Your task to perform on an android device: open app "Google Docs" Image 0: 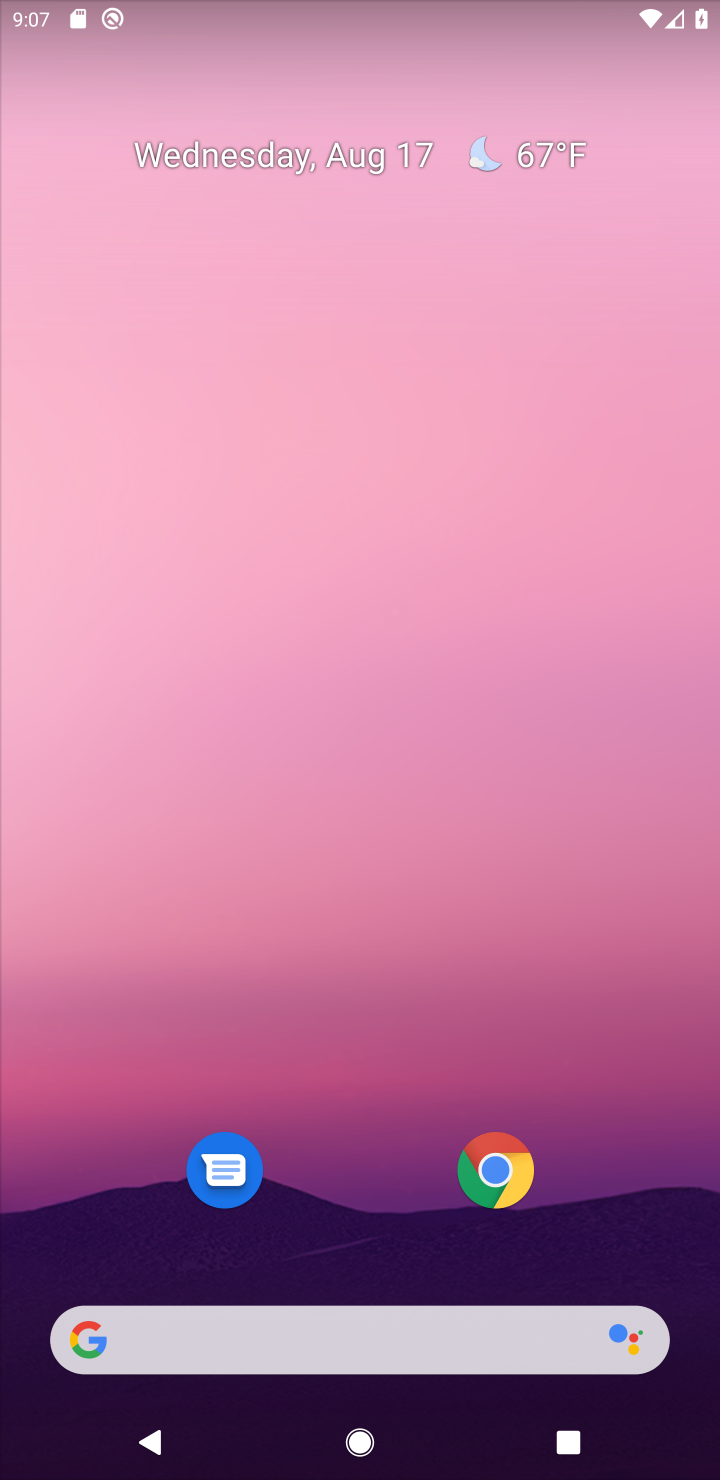
Step 0: drag from (363, 1191) to (203, 127)
Your task to perform on an android device: open app "Google Docs" Image 1: 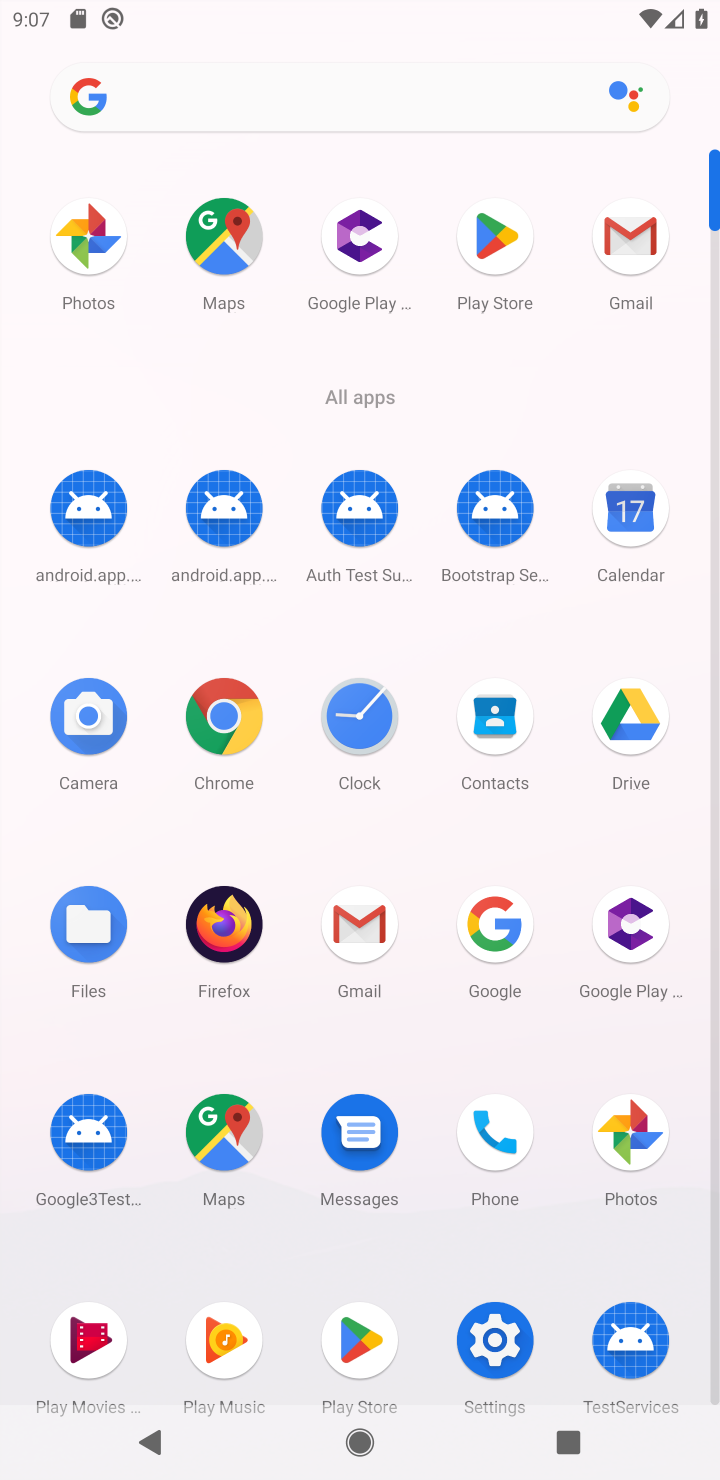
Step 1: click (330, 1313)
Your task to perform on an android device: open app "Google Docs" Image 2: 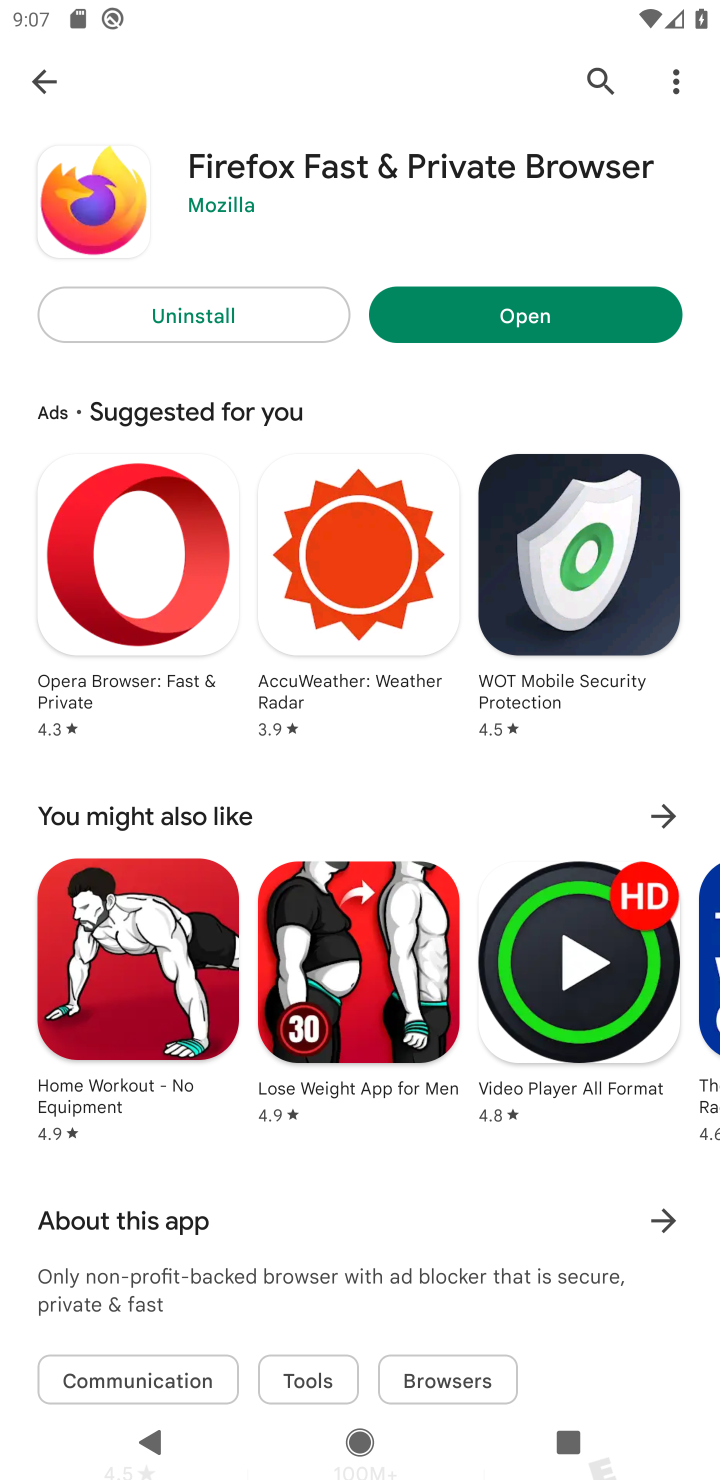
Step 2: click (28, 79)
Your task to perform on an android device: open app "Google Docs" Image 3: 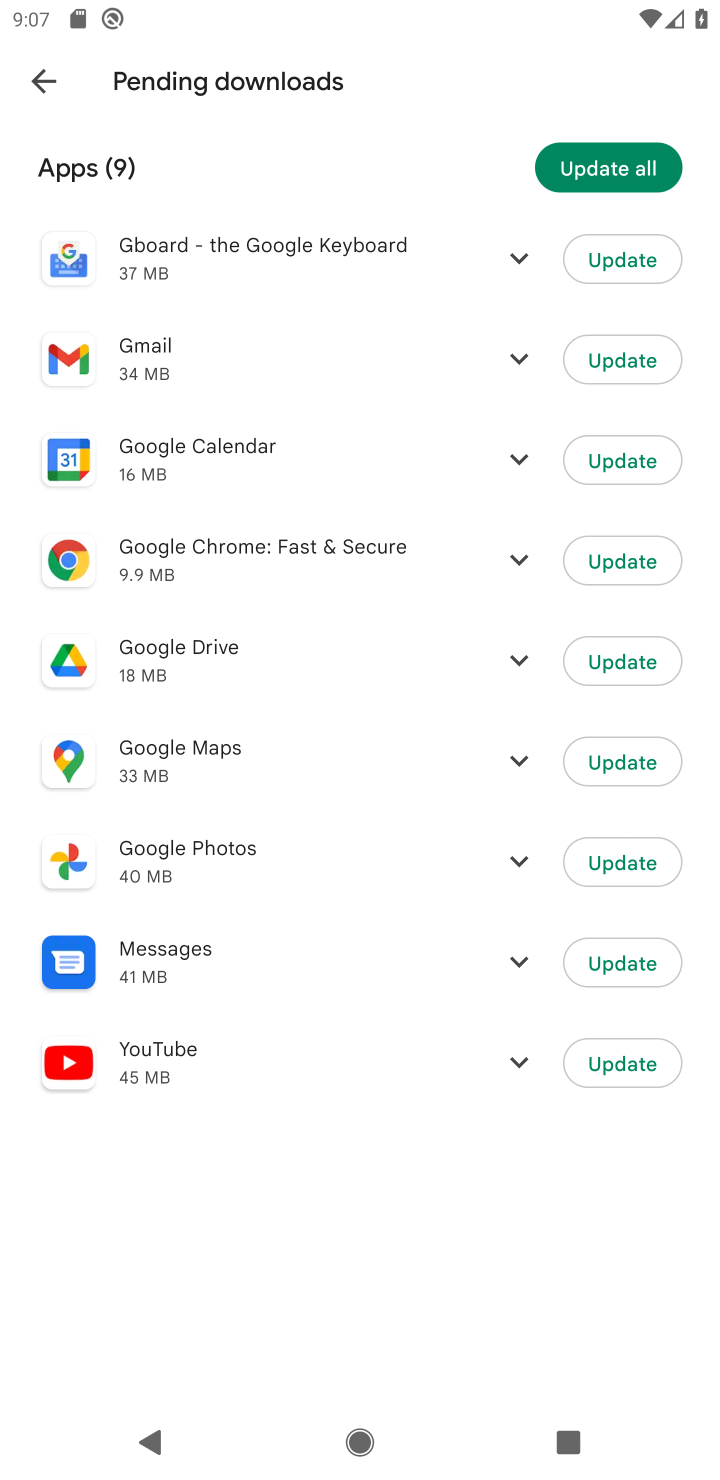
Step 3: click (51, 78)
Your task to perform on an android device: open app "Google Docs" Image 4: 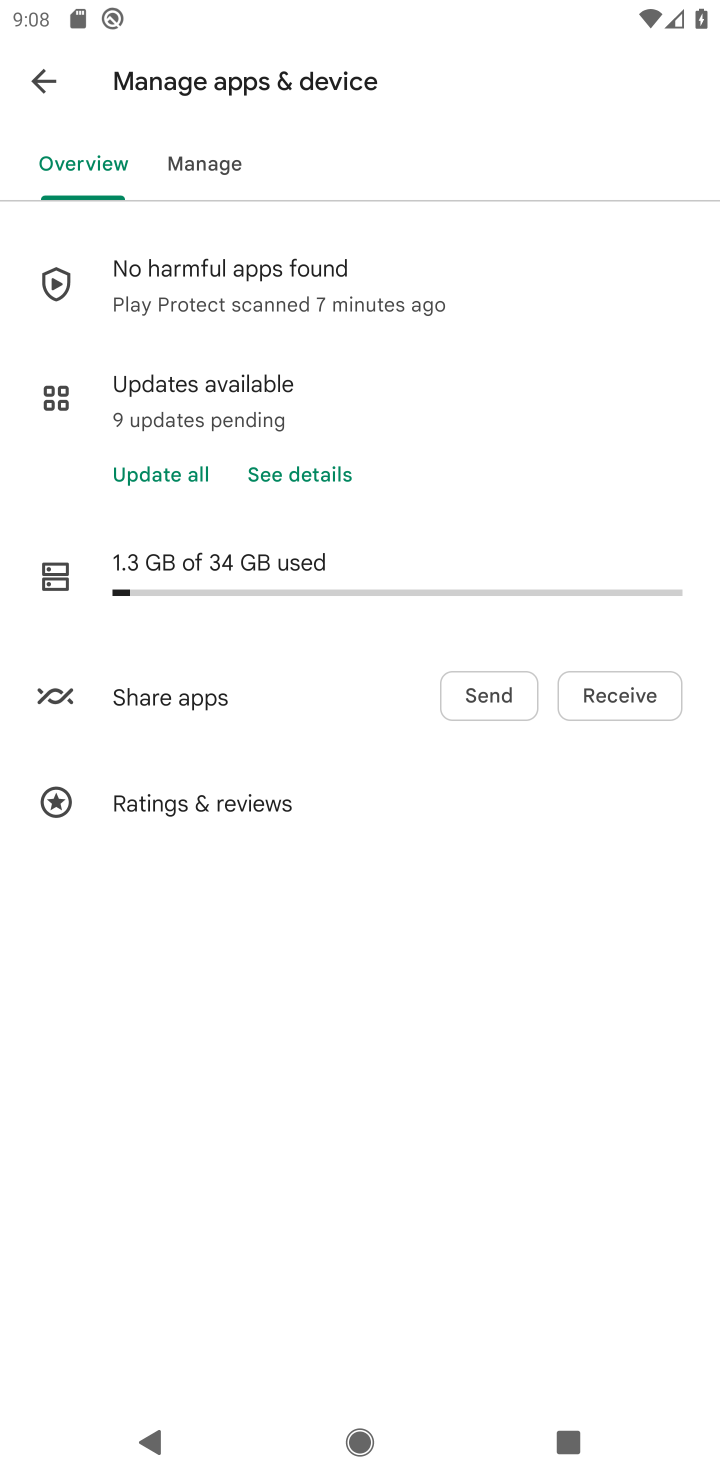
Step 4: click (51, 78)
Your task to perform on an android device: open app "Google Docs" Image 5: 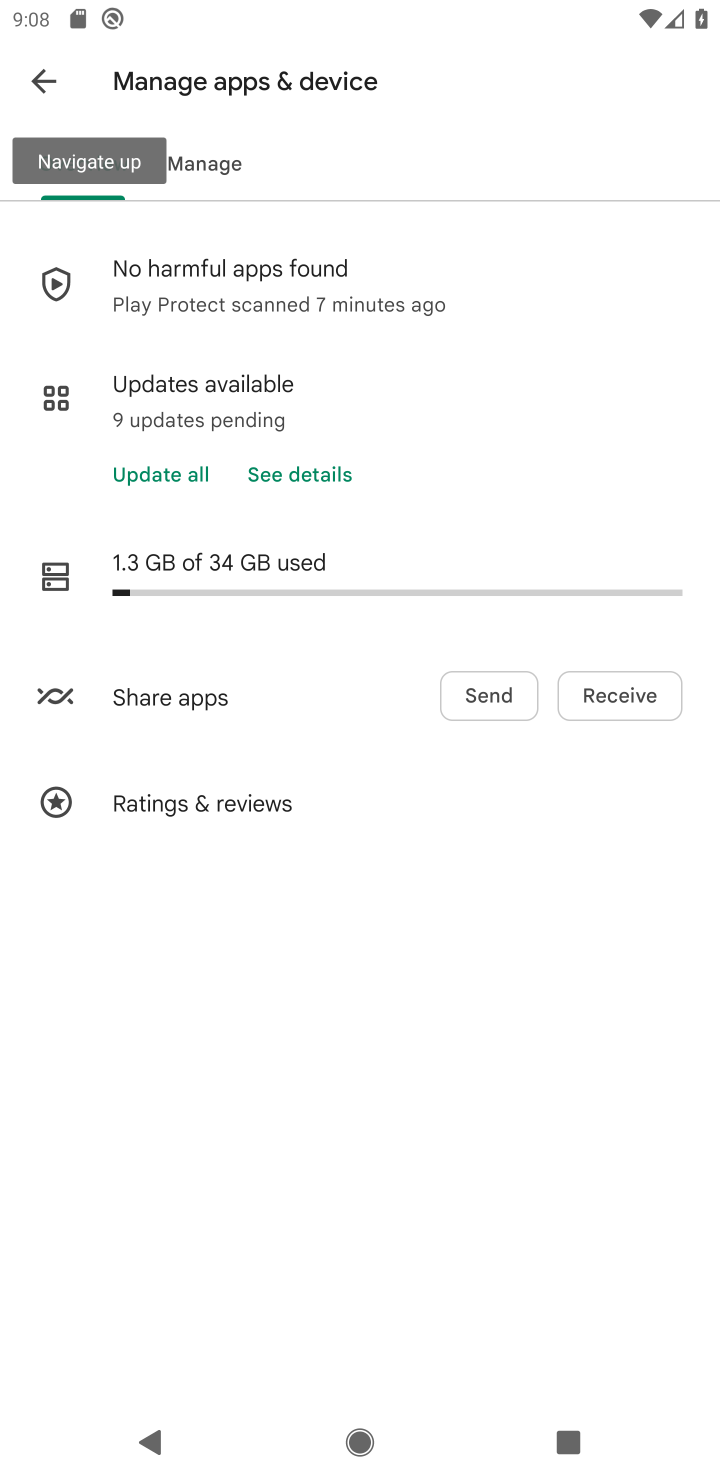
Step 5: click (57, 87)
Your task to perform on an android device: open app "Google Docs" Image 6: 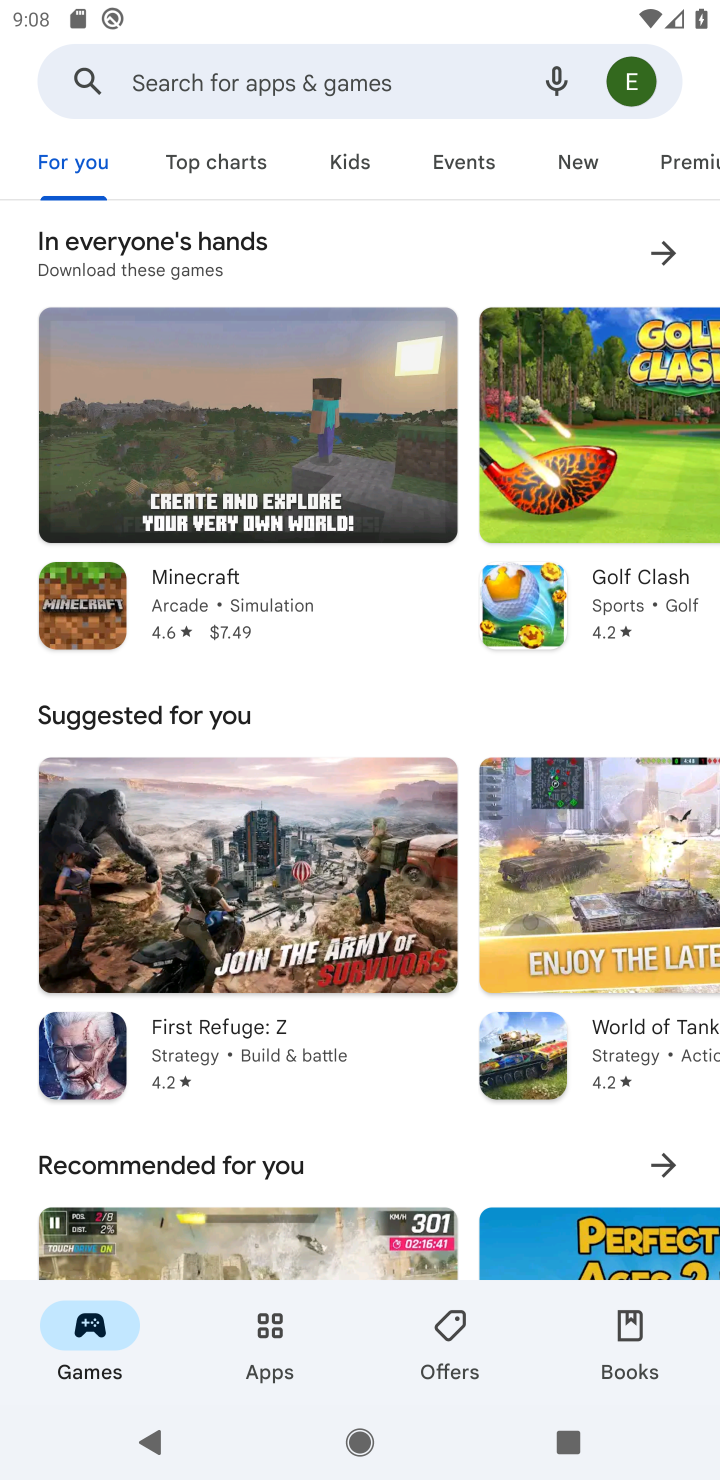
Step 6: click (196, 103)
Your task to perform on an android device: open app "Google Docs" Image 7: 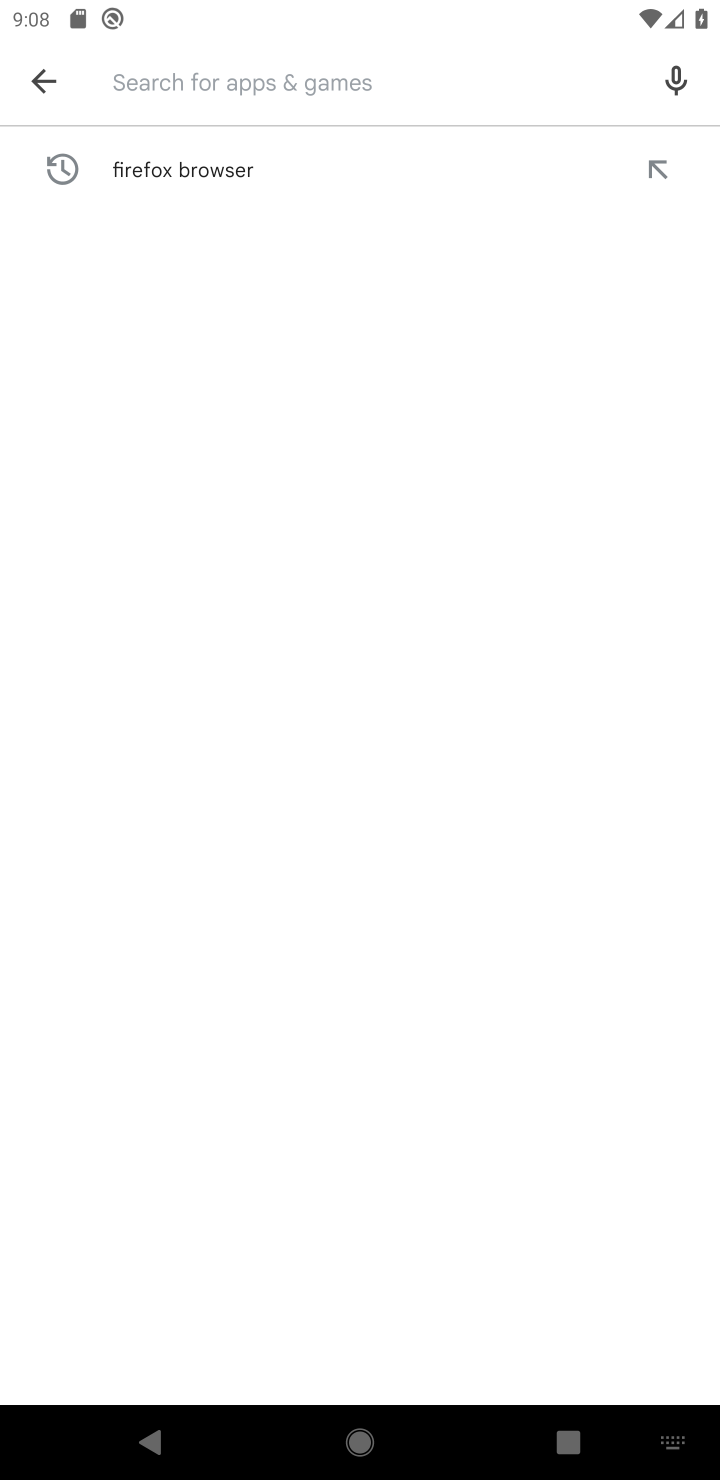
Step 7: type "Google Docs"
Your task to perform on an android device: open app "Google Docs" Image 8: 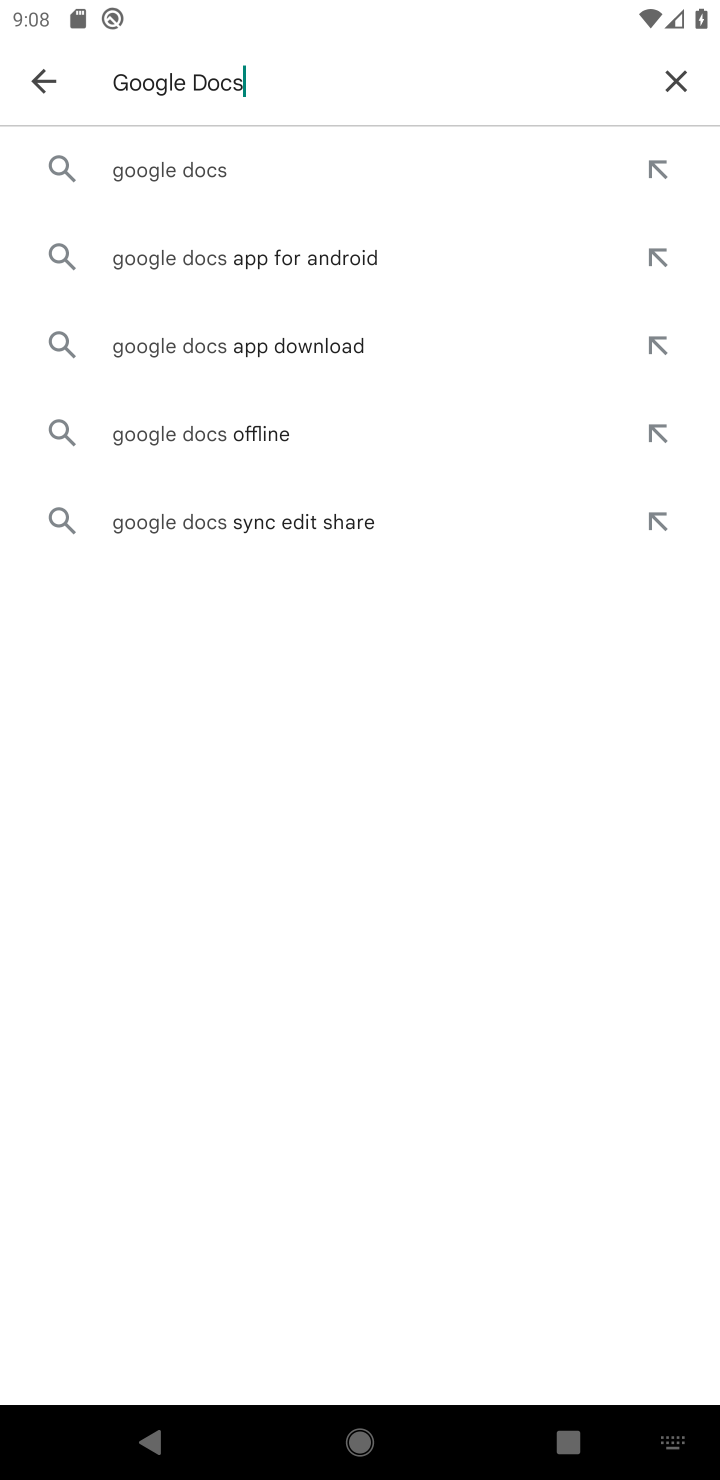
Step 8: type ""
Your task to perform on an android device: open app "Google Docs" Image 9: 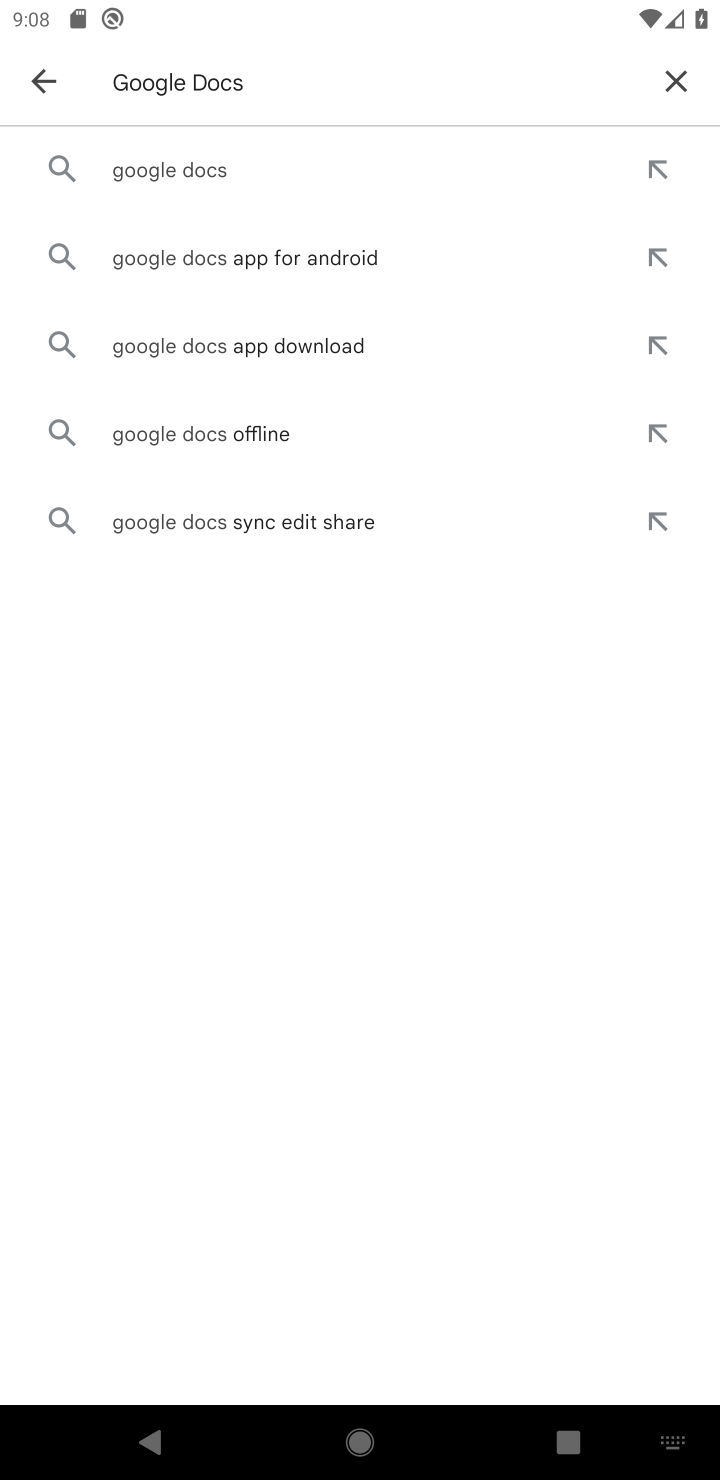
Step 9: click (196, 156)
Your task to perform on an android device: open app "Google Docs" Image 10: 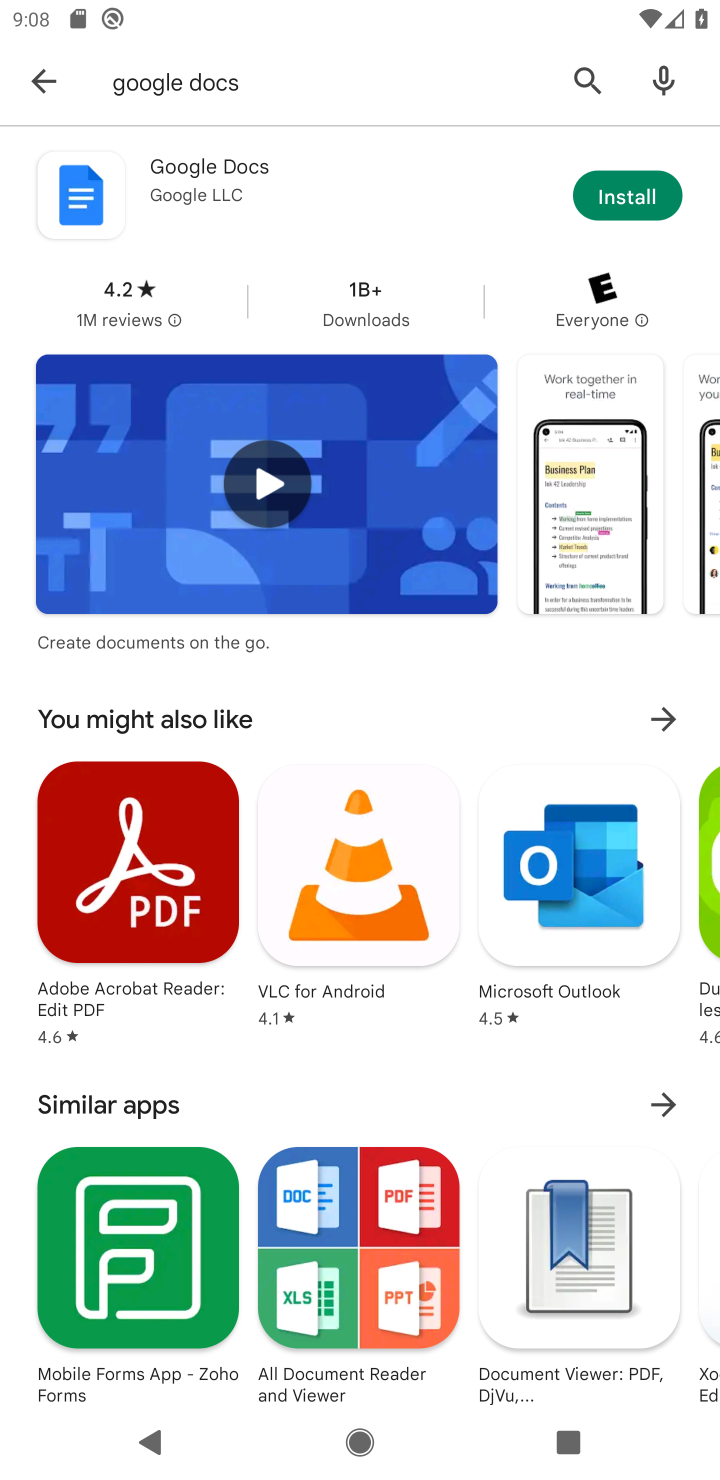
Step 10: task complete